Your task to perform on an android device: turn off location history Image 0: 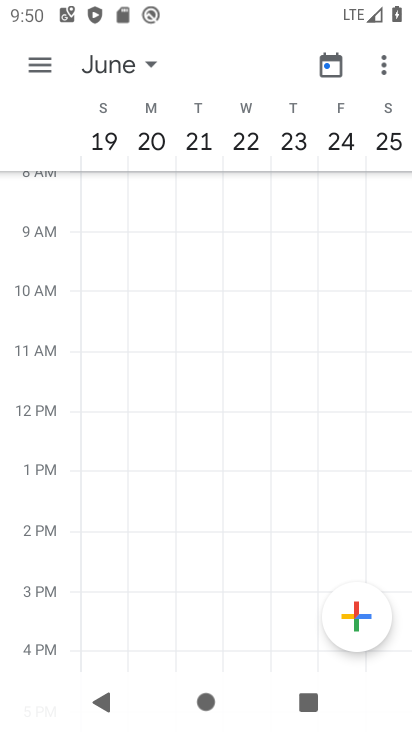
Step 0: press home button
Your task to perform on an android device: turn off location history Image 1: 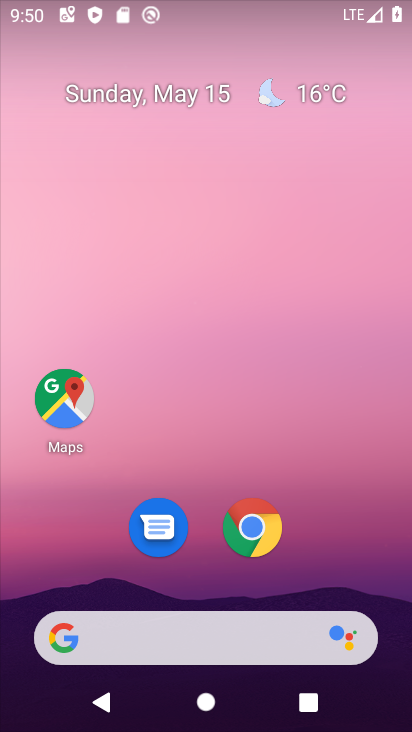
Step 1: click (62, 405)
Your task to perform on an android device: turn off location history Image 2: 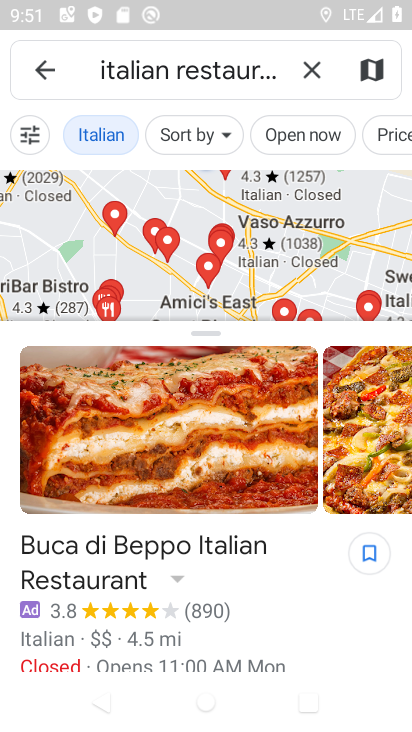
Step 2: click (316, 77)
Your task to perform on an android device: turn off location history Image 3: 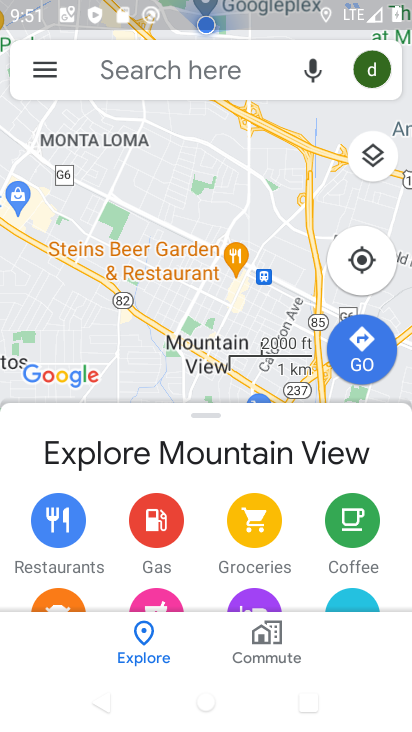
Step 3: click (39, 74)
Your task to perform on an android device: turn off location history Image 4: 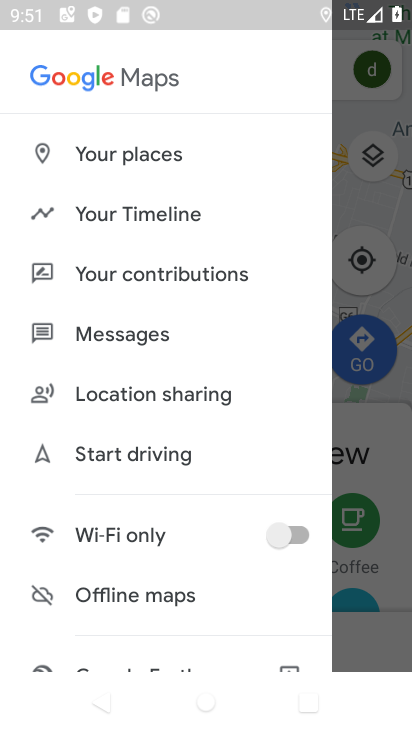
Step 4: click (94, 222)
Your task to perform on an android device: turn off location history Image 5: 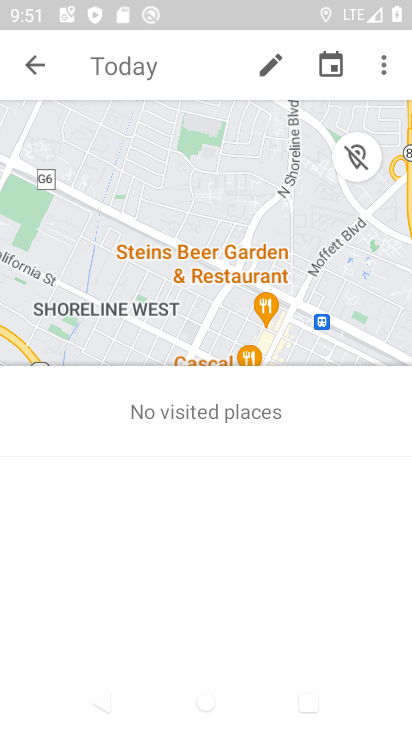
Step 5: click (391, 59)
Your task to perform on an android device: turn off location history Image 6: 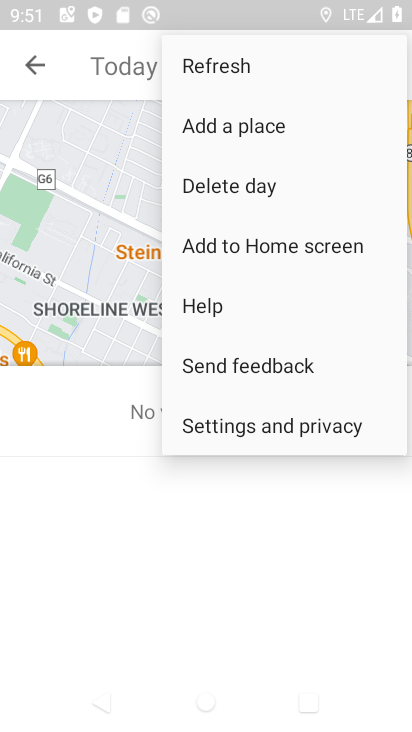
Step 6: click (252, 420)
Your task to perform on an android device: turn off location history Image 7: 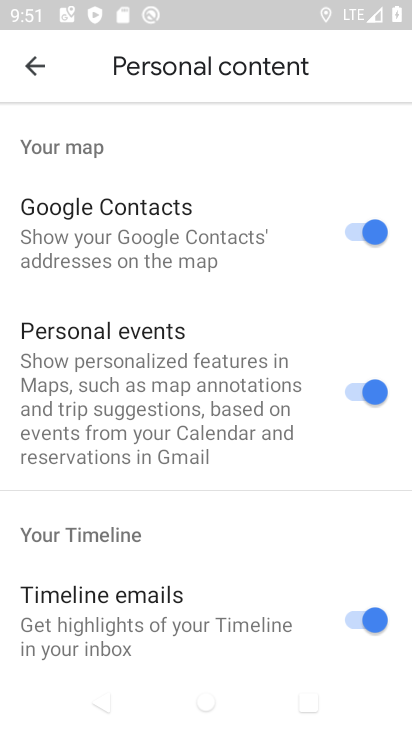
Step 7: drag from (193, 558) to (204, 170)
Your task to perform on an android device: turn off location history Image 8: 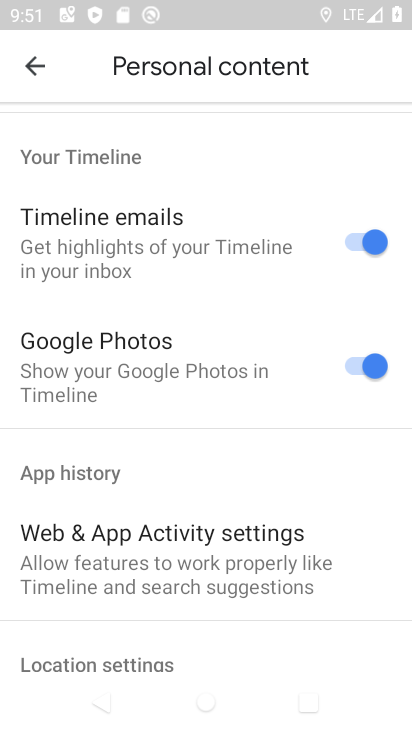
Step 8: drag from (149, 442) to (156, 164)
Your task to perform on an android device: turn off location history Image 9: 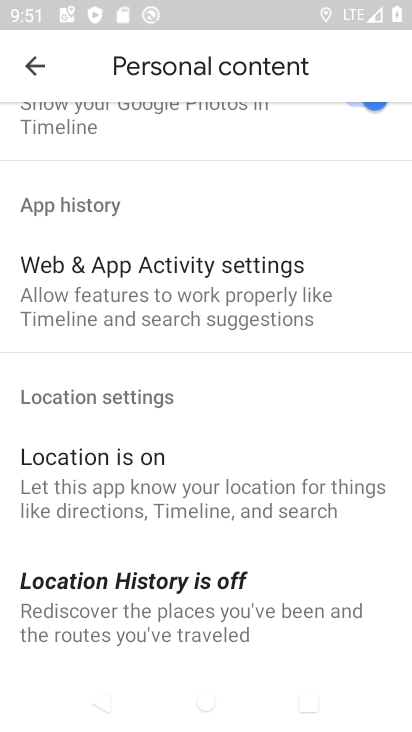
Step 9: click (130, 613)
Your task to perform on an android device: turn off location history Image 10: 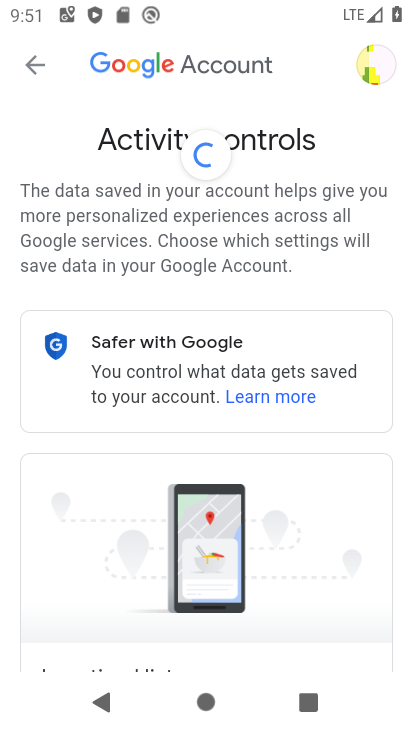
Step 10: drag from (291, 581) to (298, 163)
Your task to perform on an android device: turn off location history Image 11: 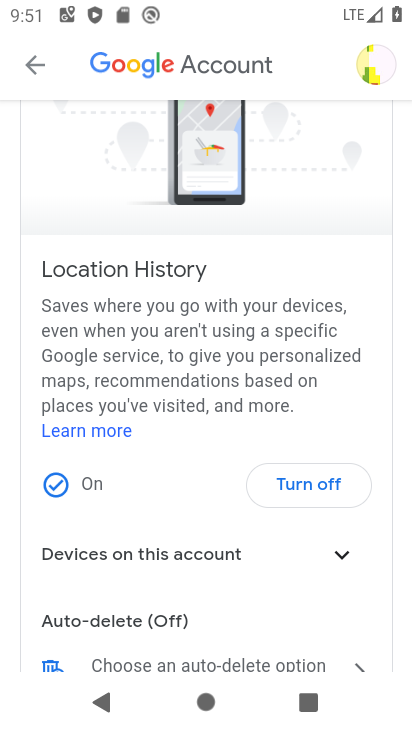
Step 11: click (300, 489)
Your task to perform on an android device: turn off location history Image 12: 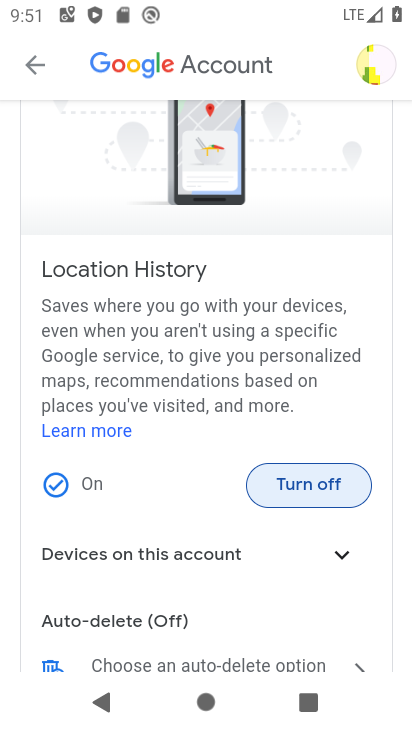
Step 12: click (301, 489)
Your task to perform on an android device: turn off location history Image 13: 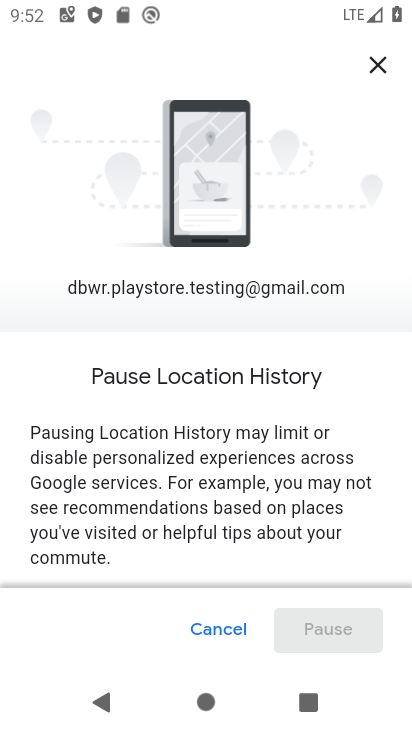
Step 13: drag from (208, 498) to (180, 20)
Your task to perform on an android device: turn off location history Image 14: 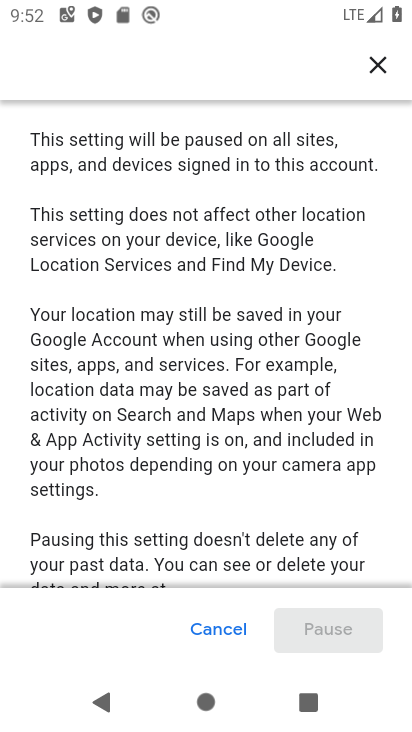
Step 14: drag from (192, 458) to (165, 8)
Your task to perform on an android device: turn off location history Image 15: 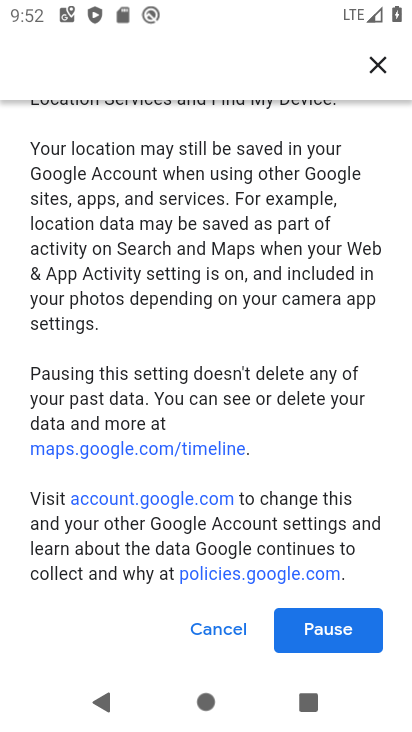
Step 15: click (324, 629)
Your task to perform on an android device: turn off location history Image 16: 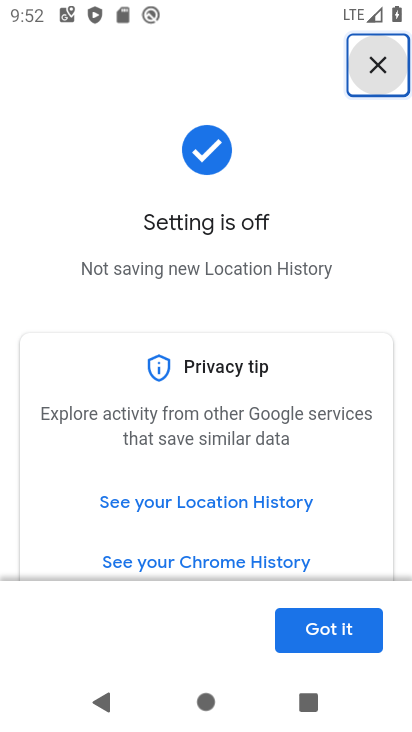
Step 16: click (324, 630)
Your task to perform on an android device: turn off location history Image 17: 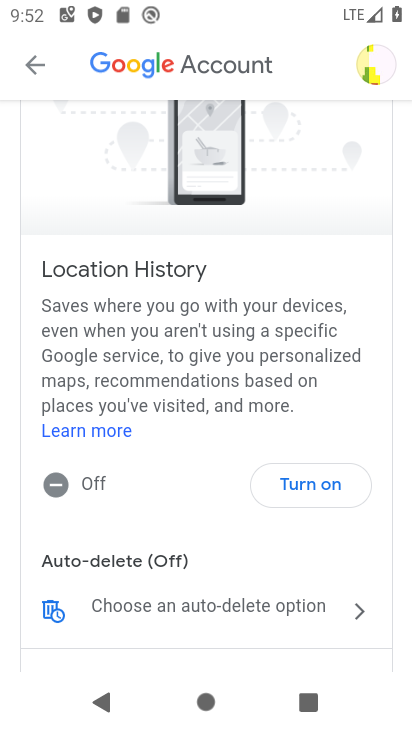
Step 17: task complete